Your task to perform on an android device: install app "Facebook Lite" Image 0: 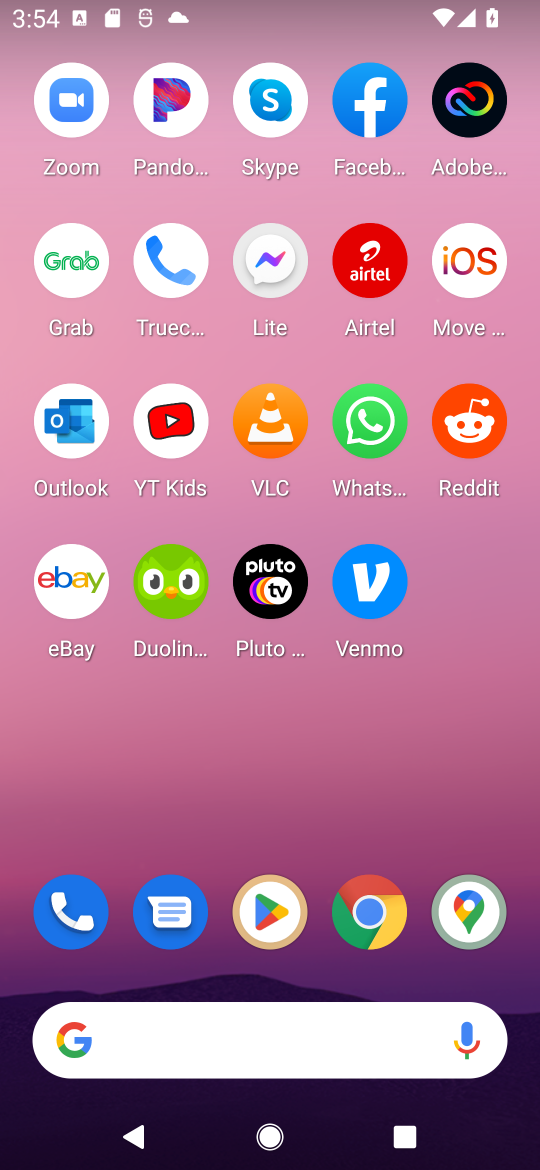
Step 0: drag from (229, 1055) to (230, 99)
Your task to perform on an android device: install app "Facebook Lite" Image 1: 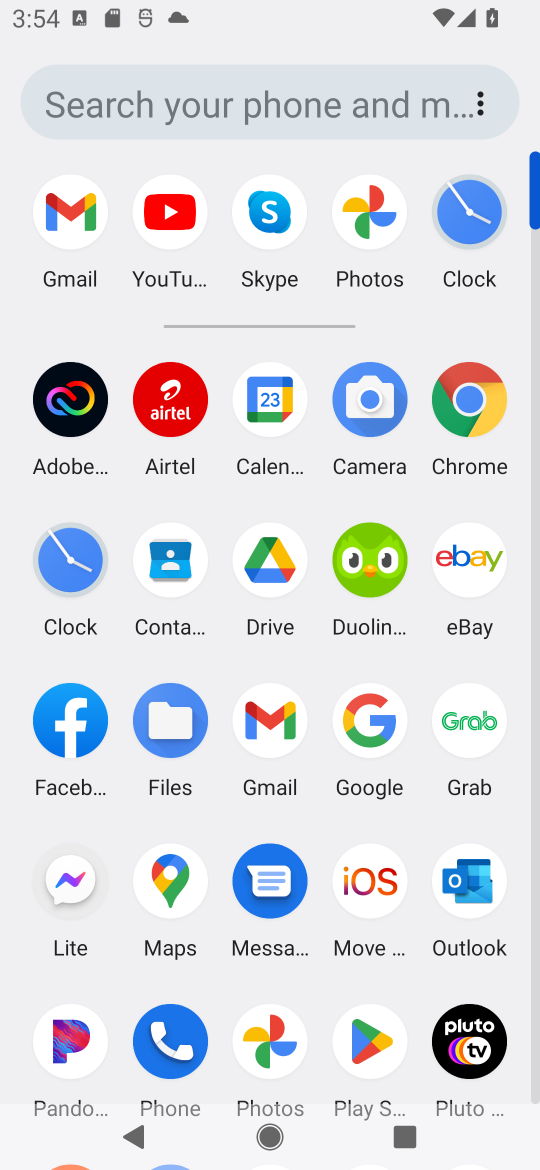
Step 1: click (373, 1035)
Your task to perform on an android device: install app "Facebook Lite" Image 2: 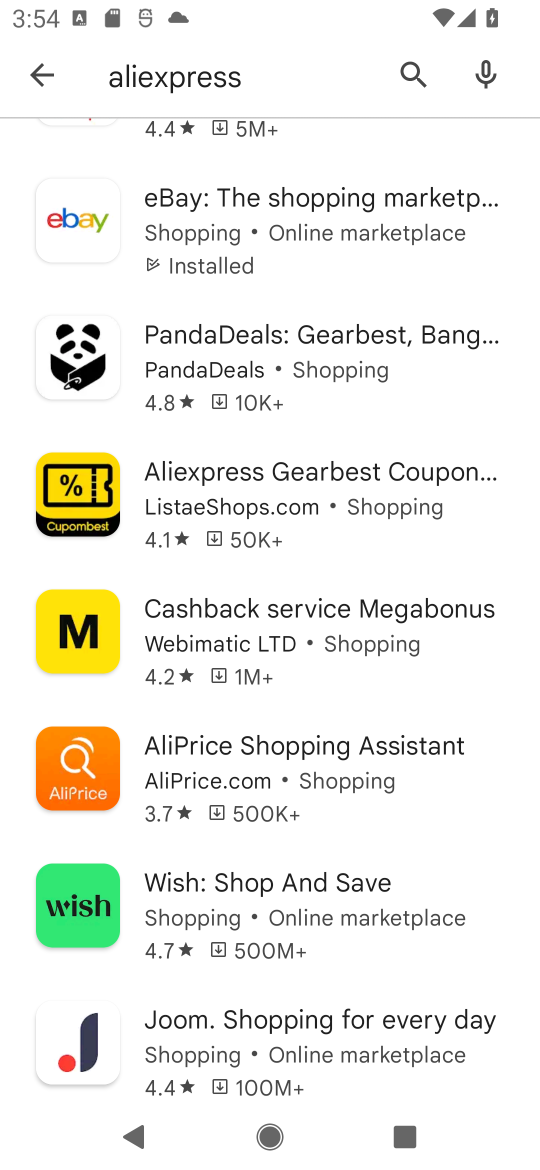
Step 2: press back button
Your task to perform on an android device: install app "Facebook Lite" Image 3: 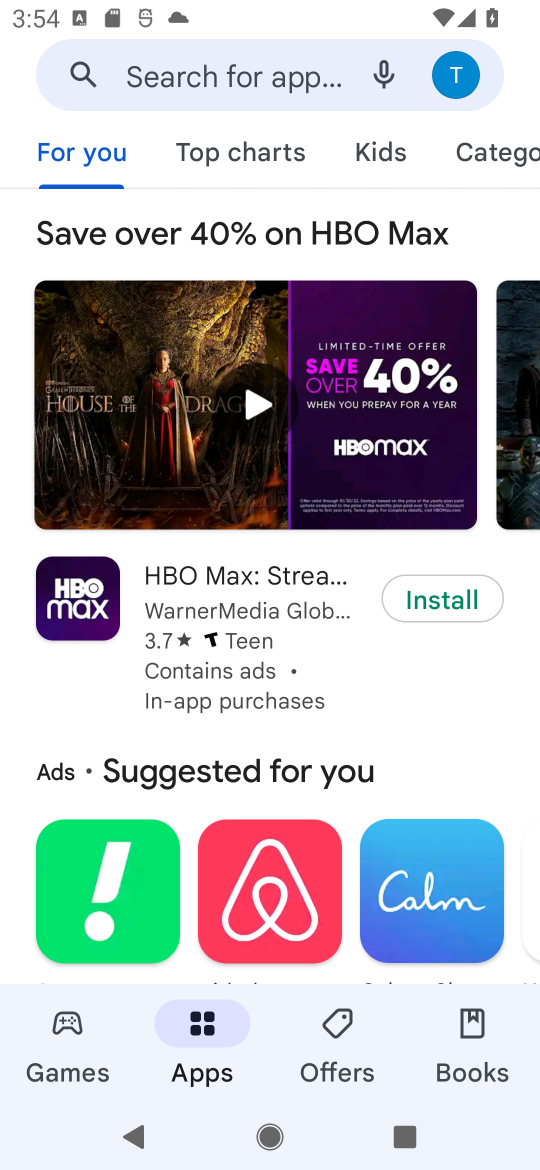
Step 3: click (322, 79)
Your task to perform on an android device: install app "Facebook Lite" Image 4: 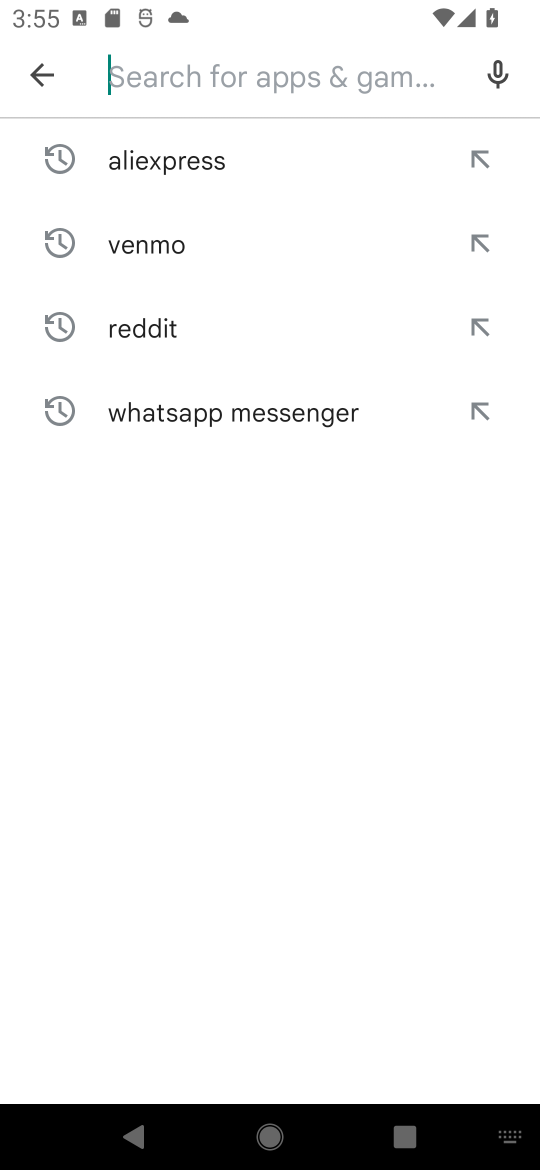
Step 4: type "Facebook Lite"
Your task to perform on an android device: install app "Facebook Lite" Image 5: 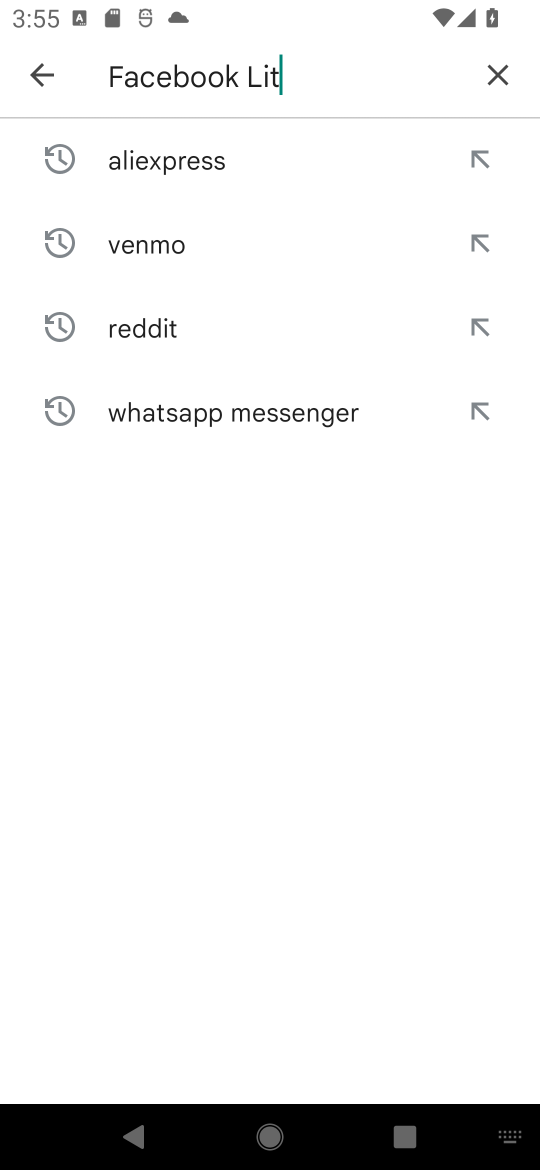
Step 5: type ""
Your task to perform on an android device: install app "Facebook Lite" Image 6: 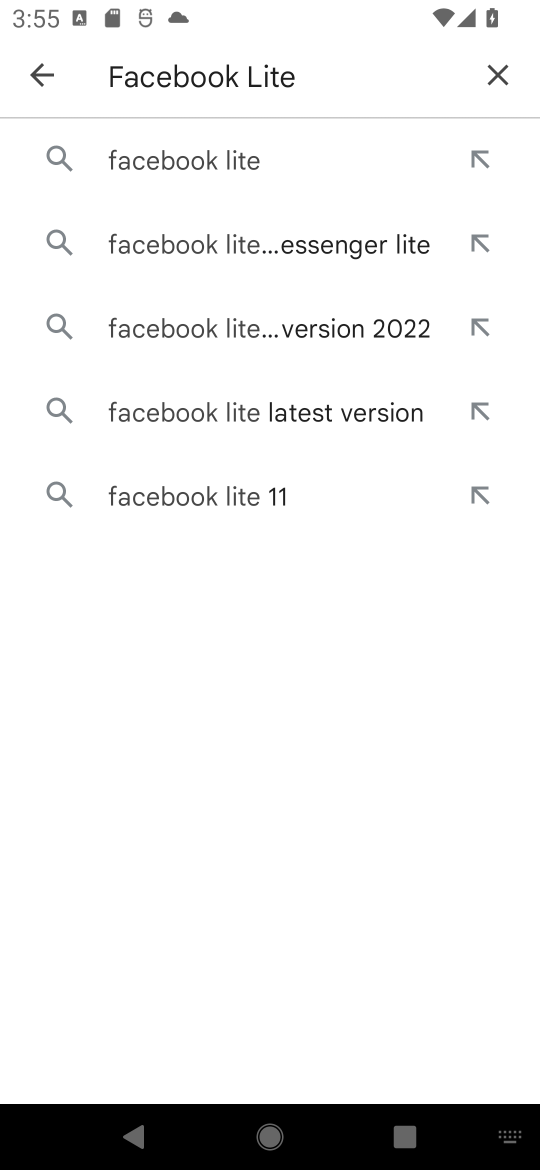
Step 6: click (181, 162)
Your task to perform on an android device: install app "Facebook Lite" Image 7: 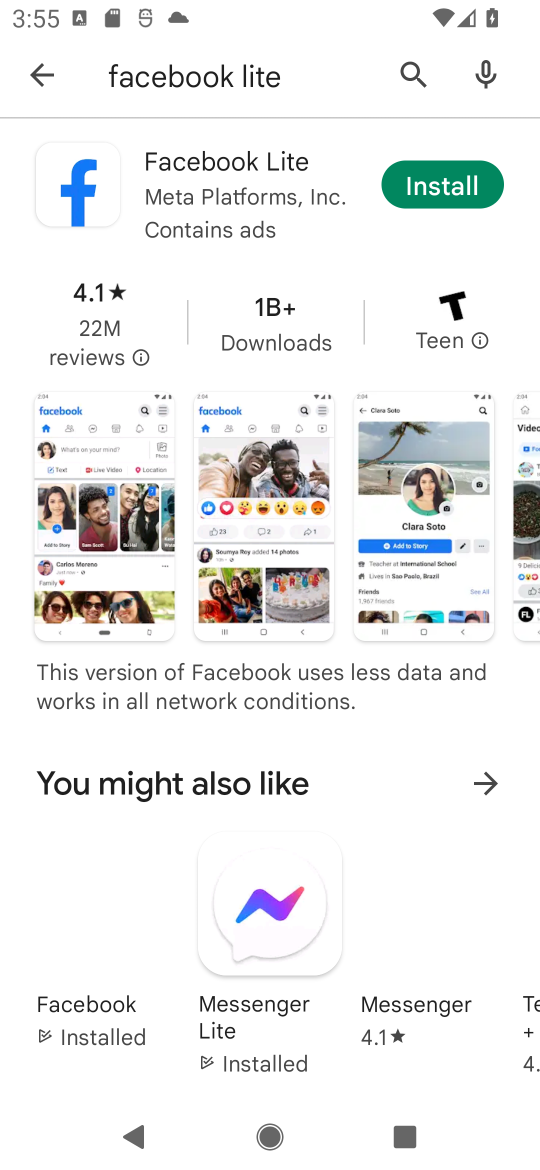
Step 7: click (446, 185)
Your task to perform on an android device: install app "Facebook Lite" Image 8: 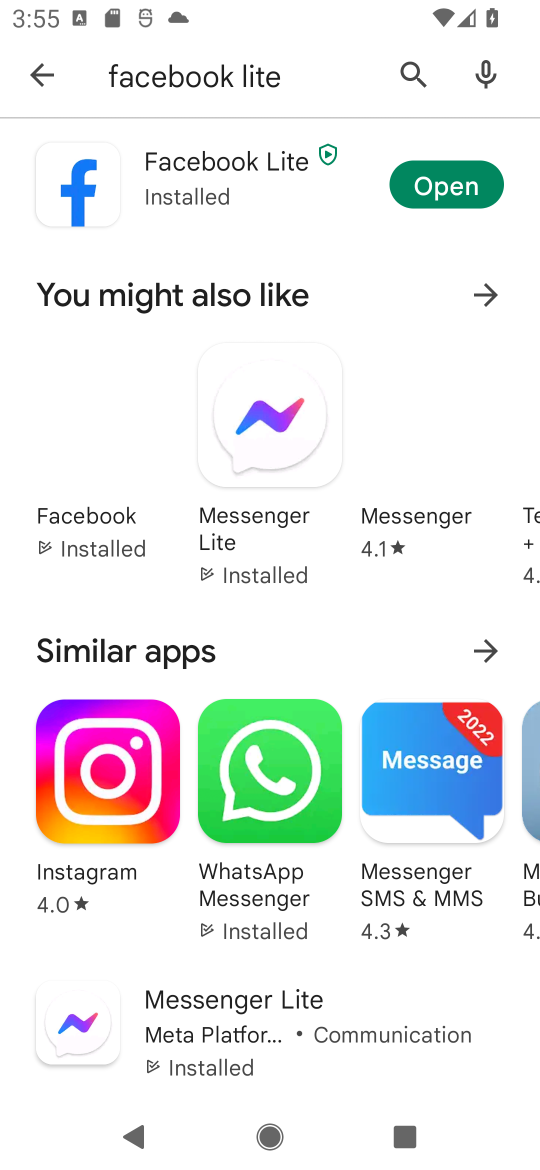
Step 8: task complete